Your task to perform on an android device: Set an alarm for 12pm Image 0: 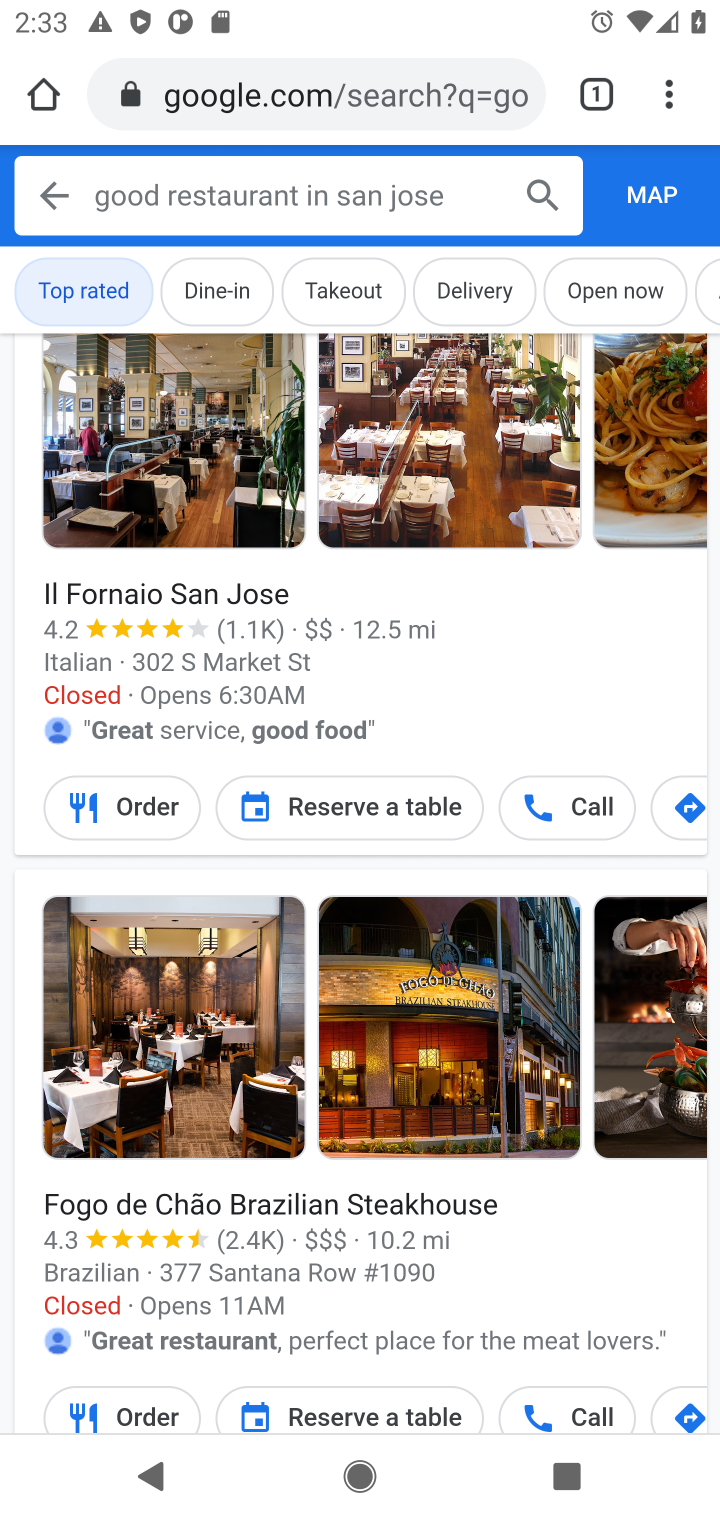
Step 0: press home button
Your task to perform on an android device: Set an alarm for 12pm Image 1: 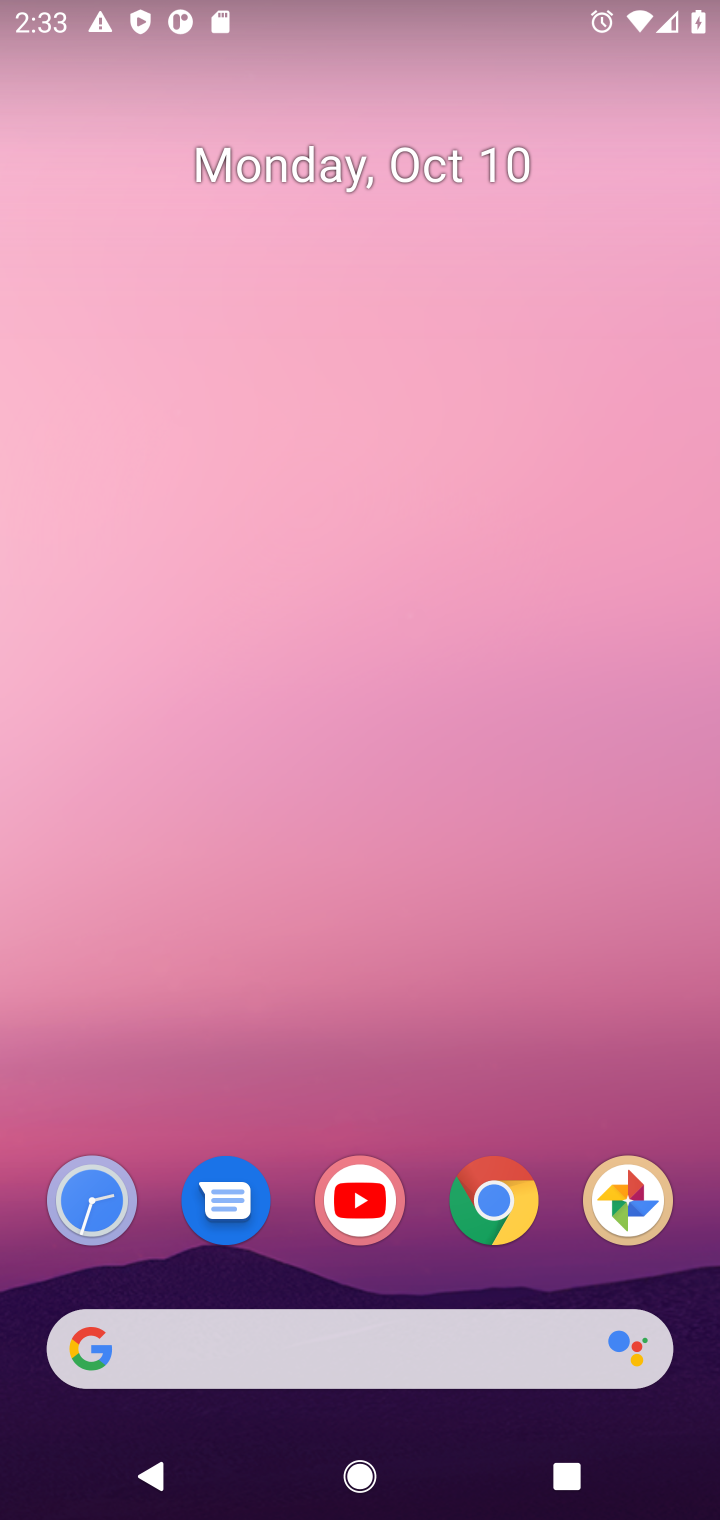
Step 1: press home button
Your task to perform on an android device: Set an alarm for 12pm Image 2: 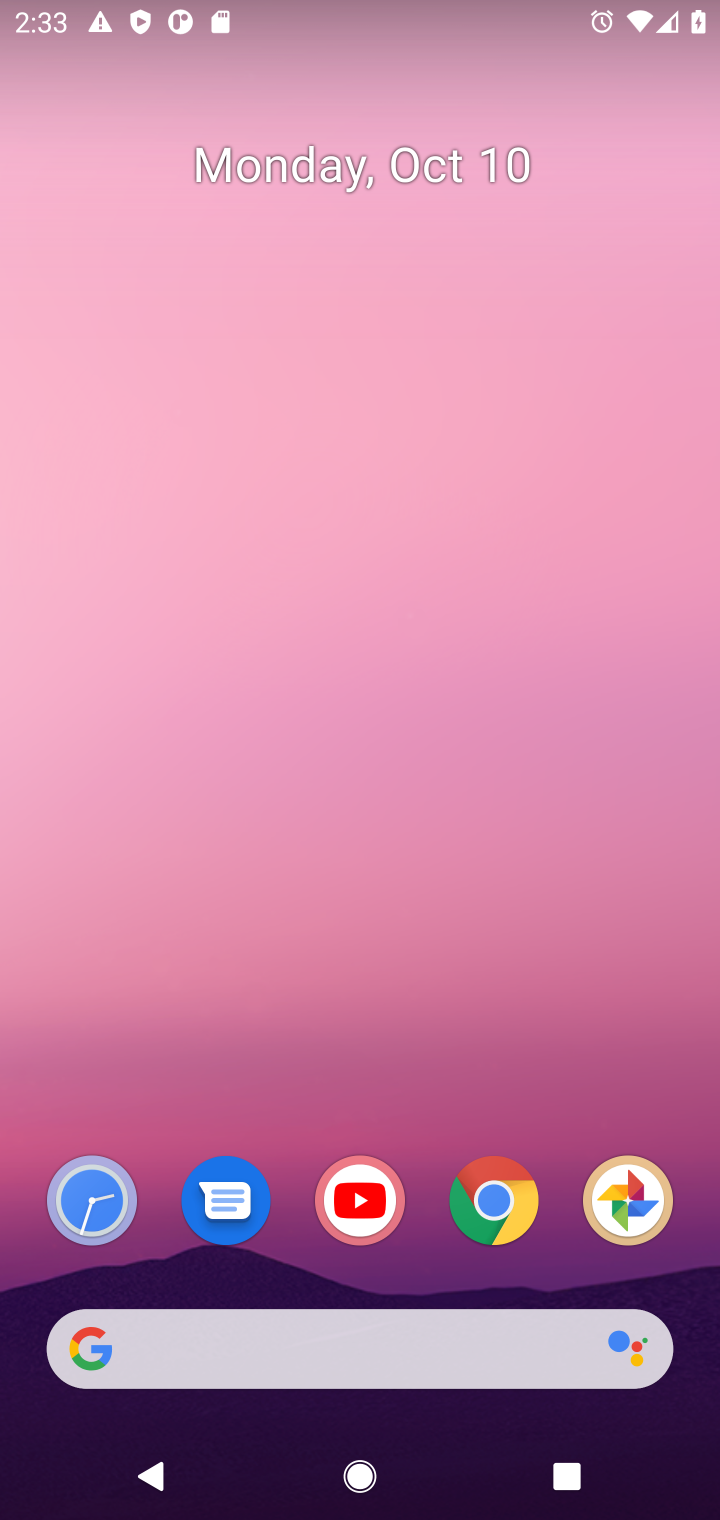
Step 2: click (518, 1202)
Your task to perform on an android device: Set an alarm for 12pm Image 3: 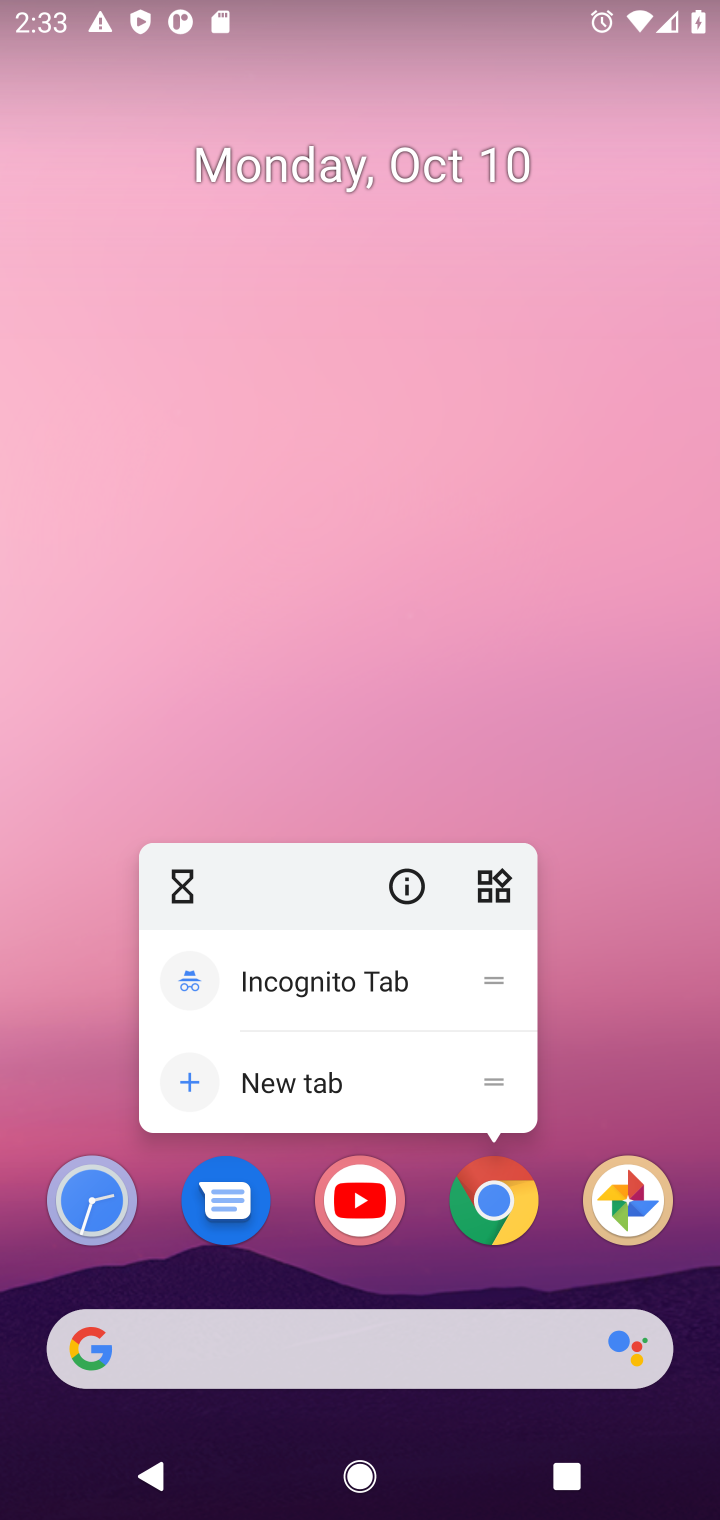
Step 3: click (605, 865)
Your task to perform on an android device: Set an alarm for 12pm Image 4: 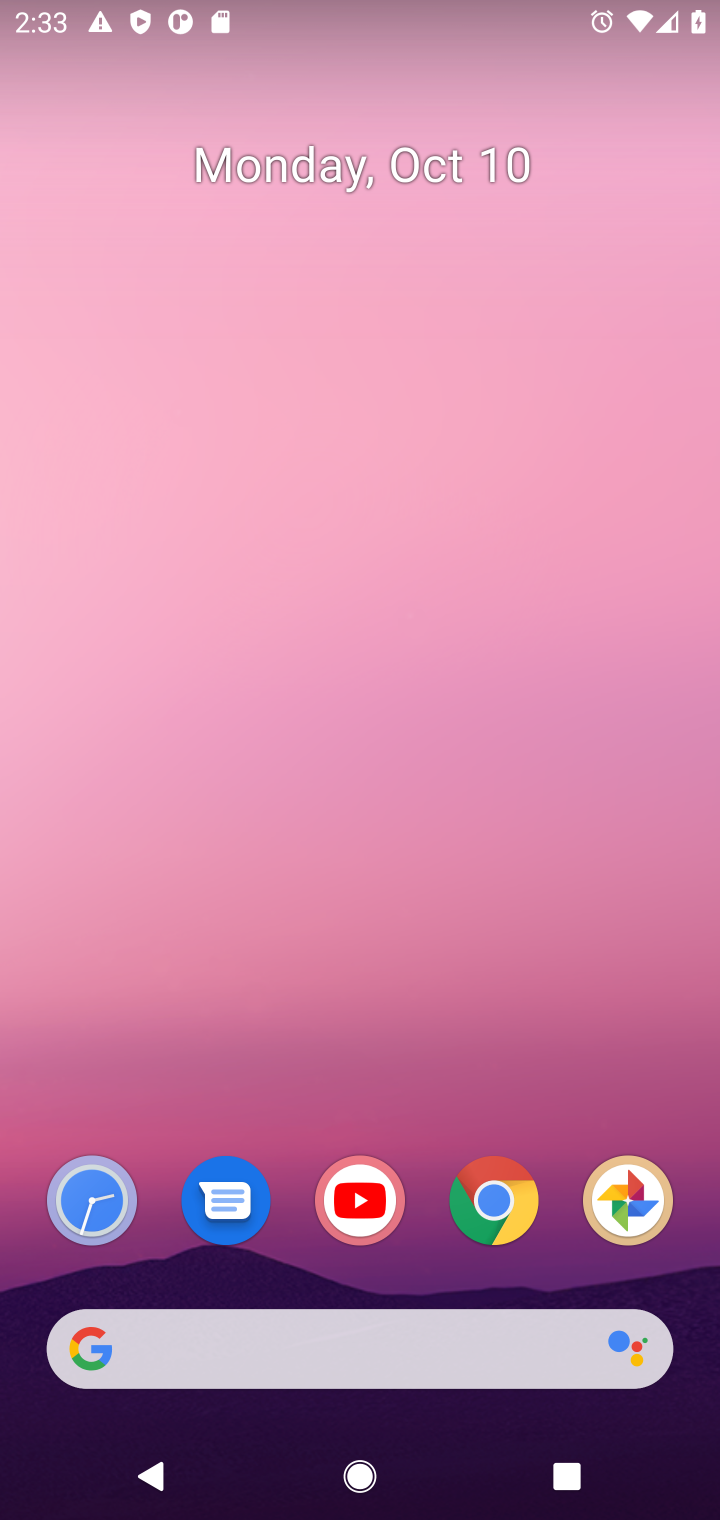
Step 4: click (503, 1221)
Your task to perform on an android device: Set an alarm for 12pm Image 5: 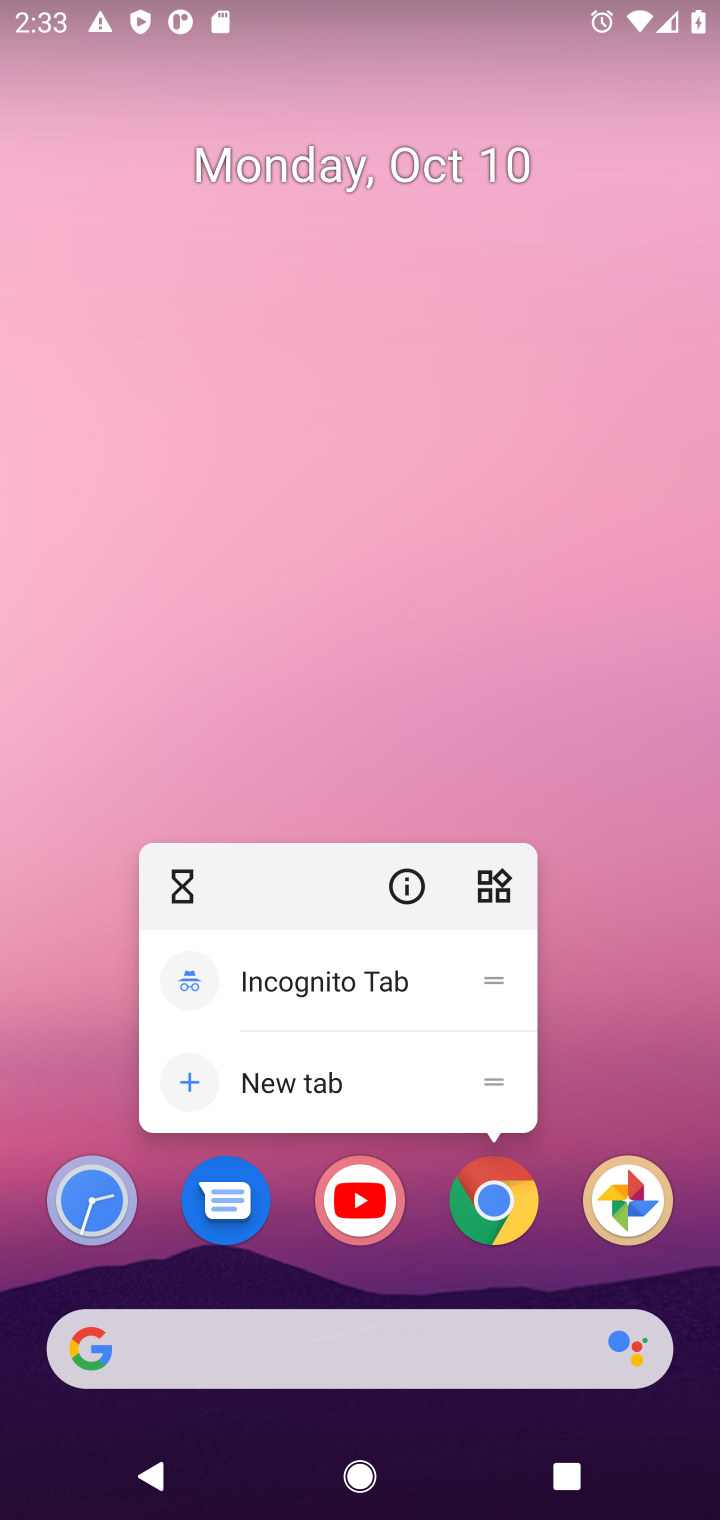
Step 5: click (626, 931)
Your task to perform on an android device: Set an alarm for 12pm Image 6: 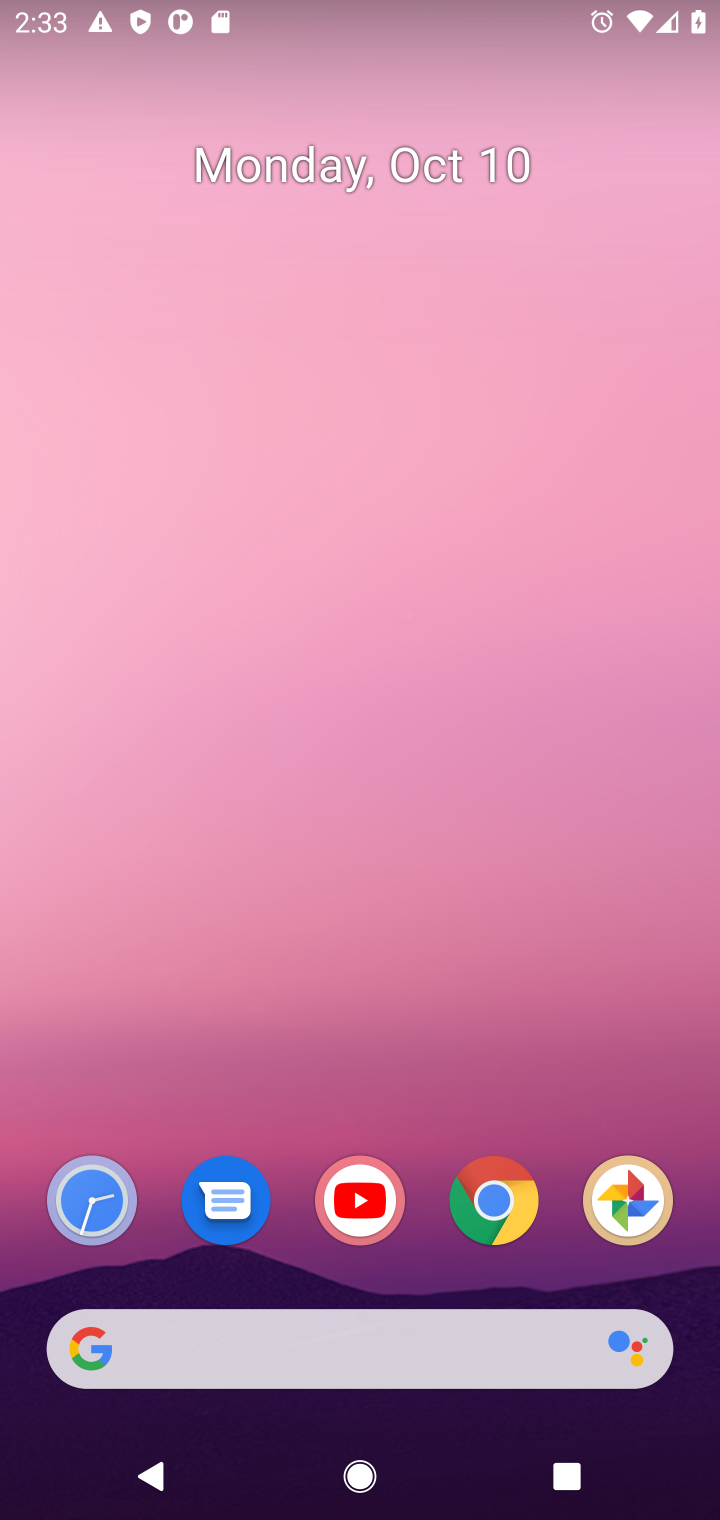
Step 6: click (488, 1221)
Your task to perform on an android device: Set an alarm for 12pm Image 7: 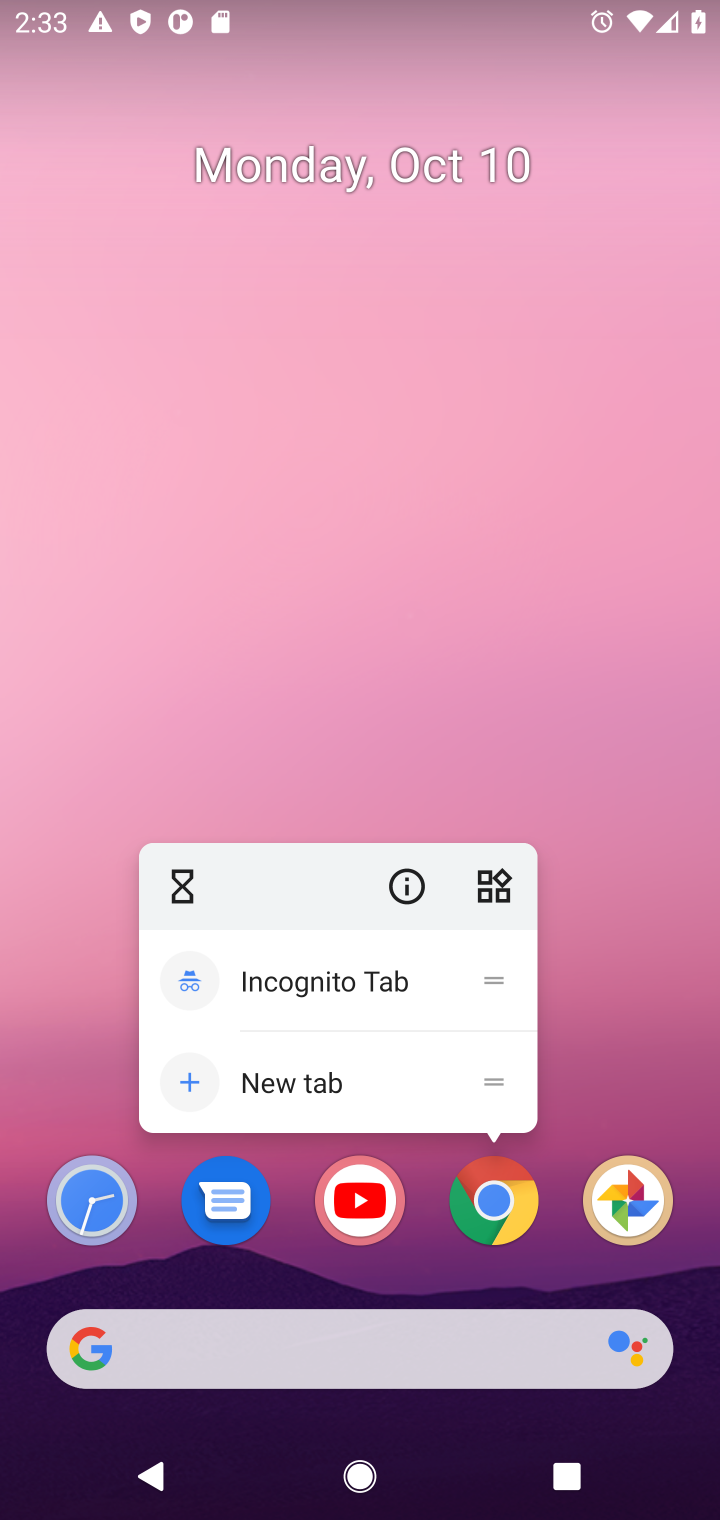
Step 7: drag from (512, 442) to (581, 157)
Your task to perform on an android device: Set an alarm for 12pm Image 8: 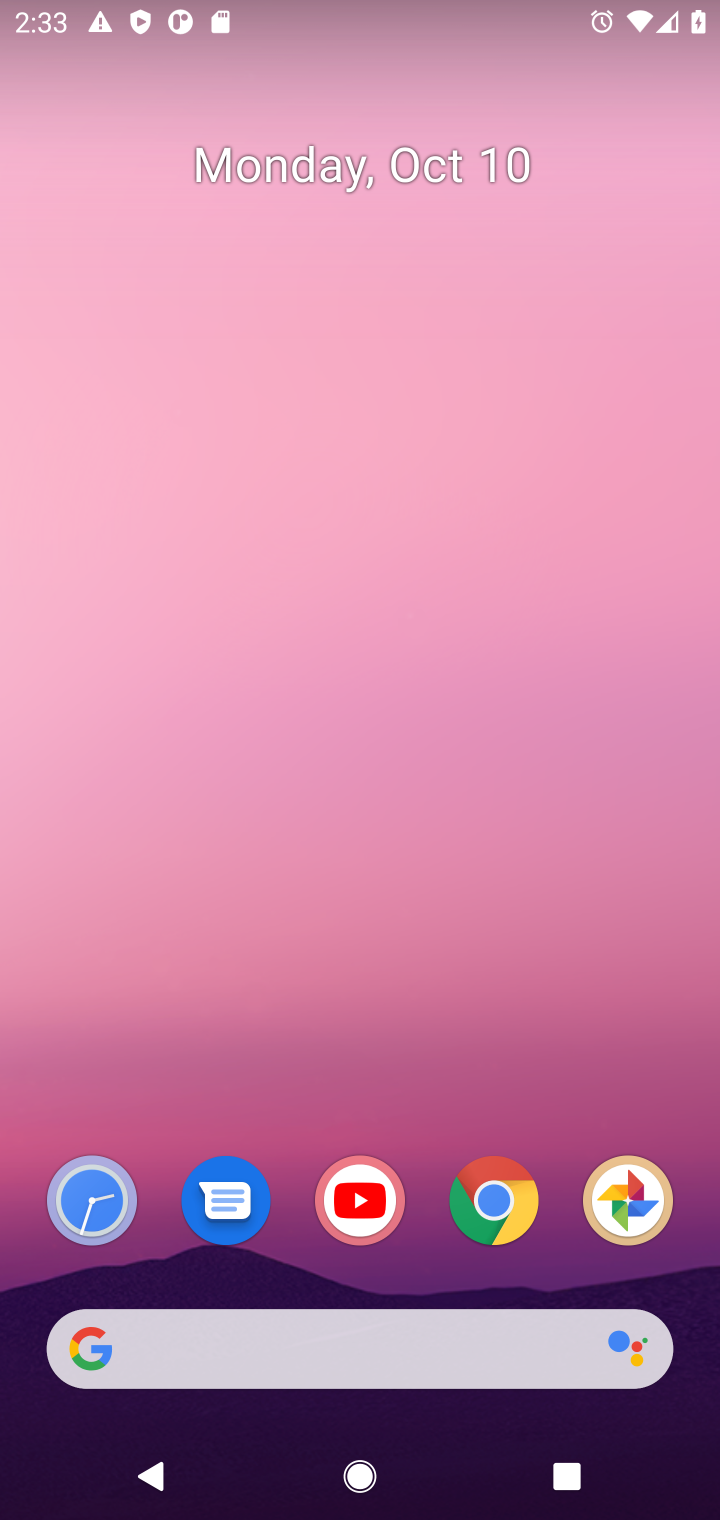
Step 8: click (103, 1189)
Your task to perform on an android device: Set an alarm for 12pm Image 9: 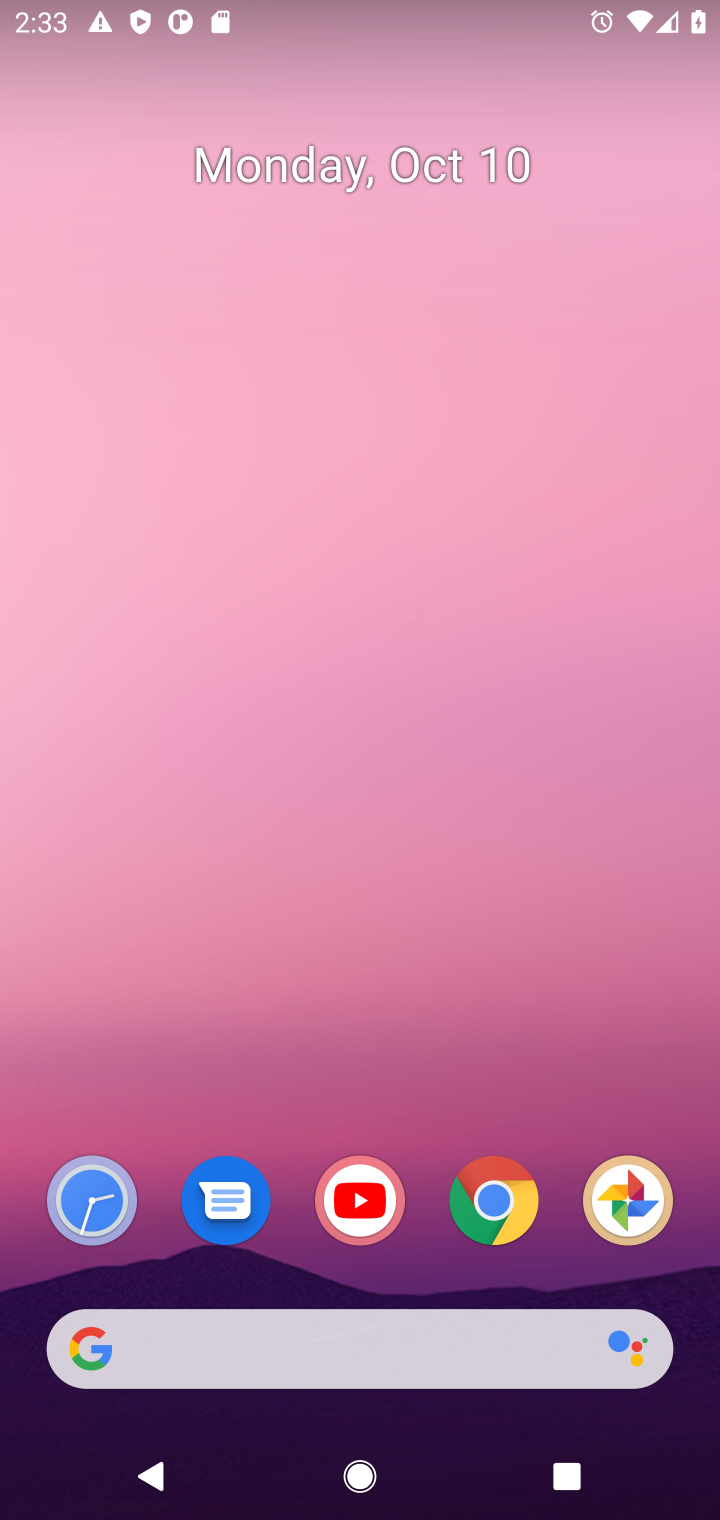
Step 9: click (91, 1214)
Your task to perform on an android device: Set an alarm for 12pm Image 10: 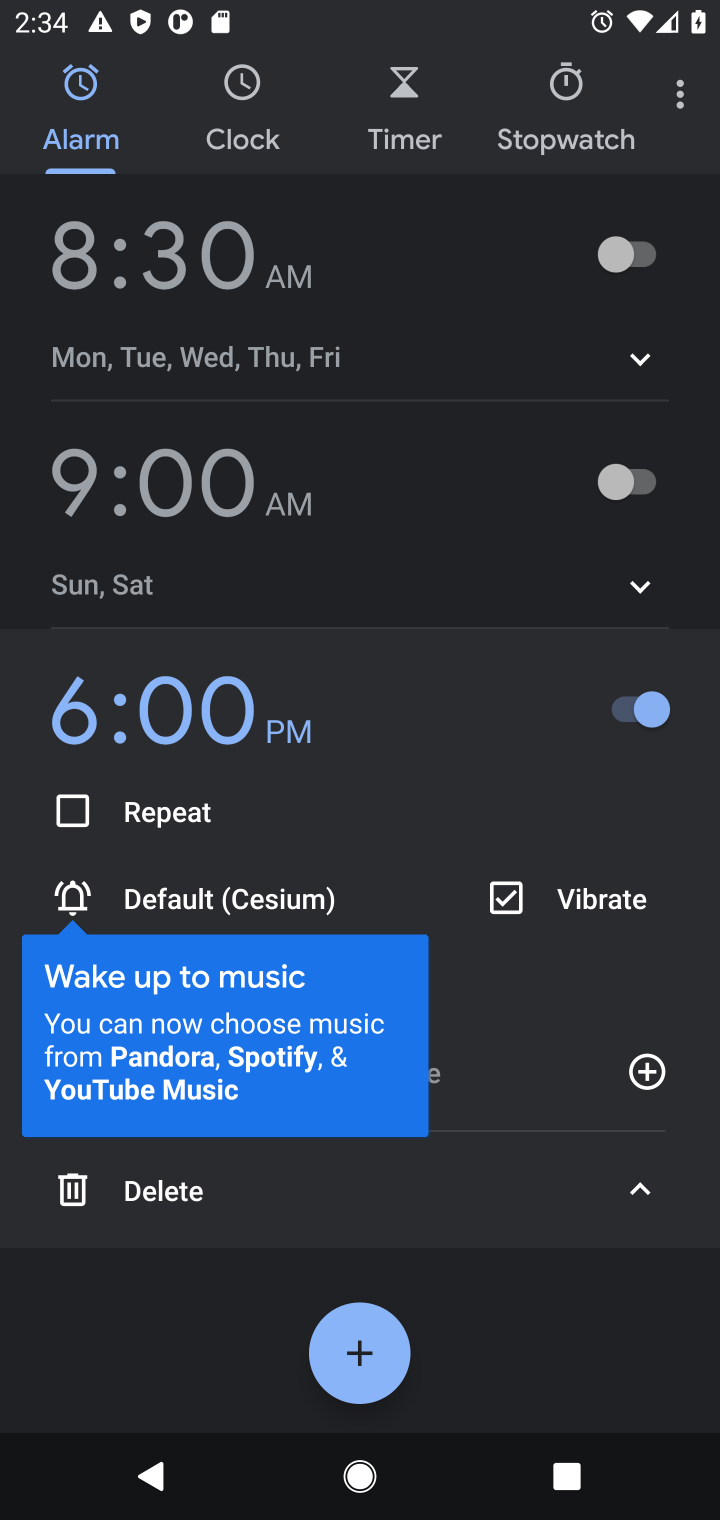
Step 10: click (374, 1358)
Your task to perform on an android device: Set an alarm for 12pm Image 11: 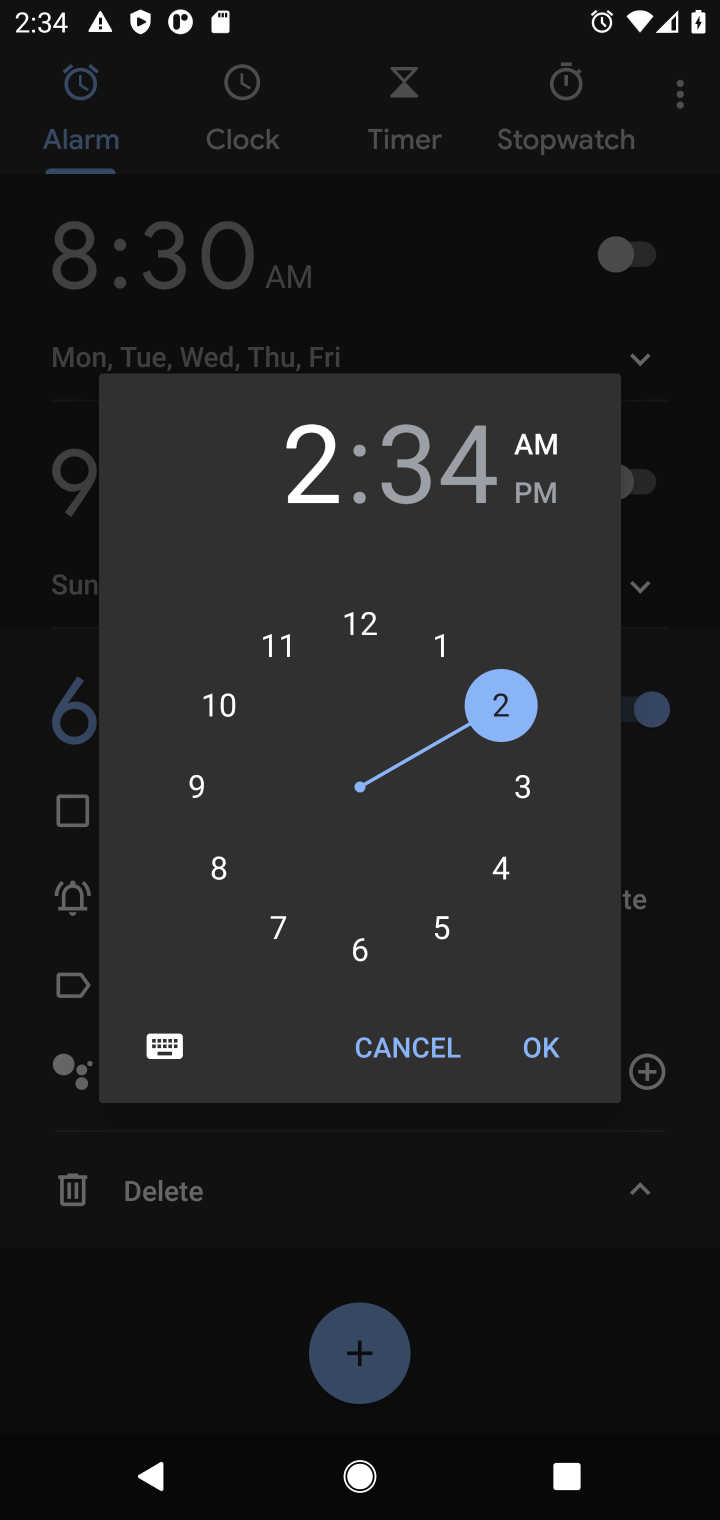
Step 11: click (544, 493)
Your task to perform on an android device: Set an alarm for 12pm Image 12: 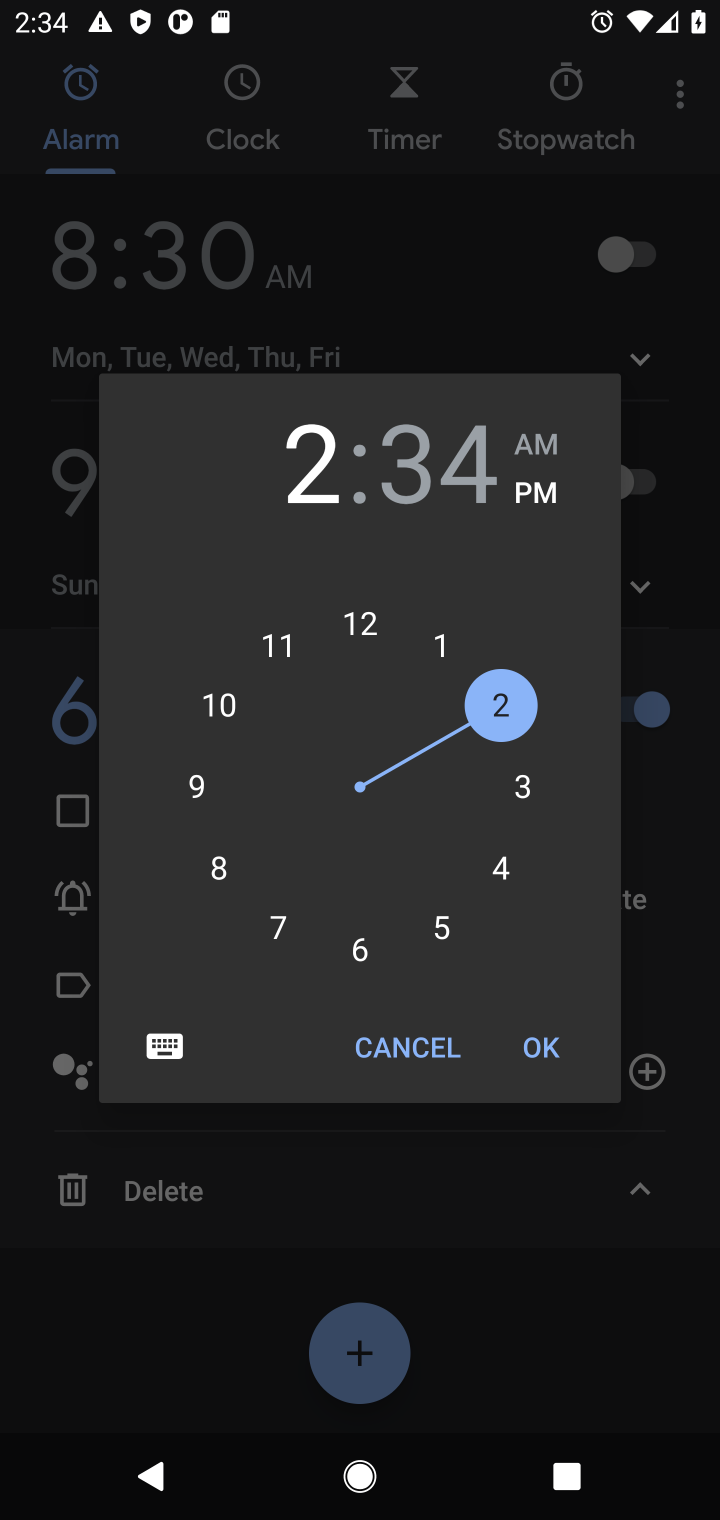
Step 12: click (371, 632)
Your task to perform on an android device: Set an alarm for 12pm Image 13: 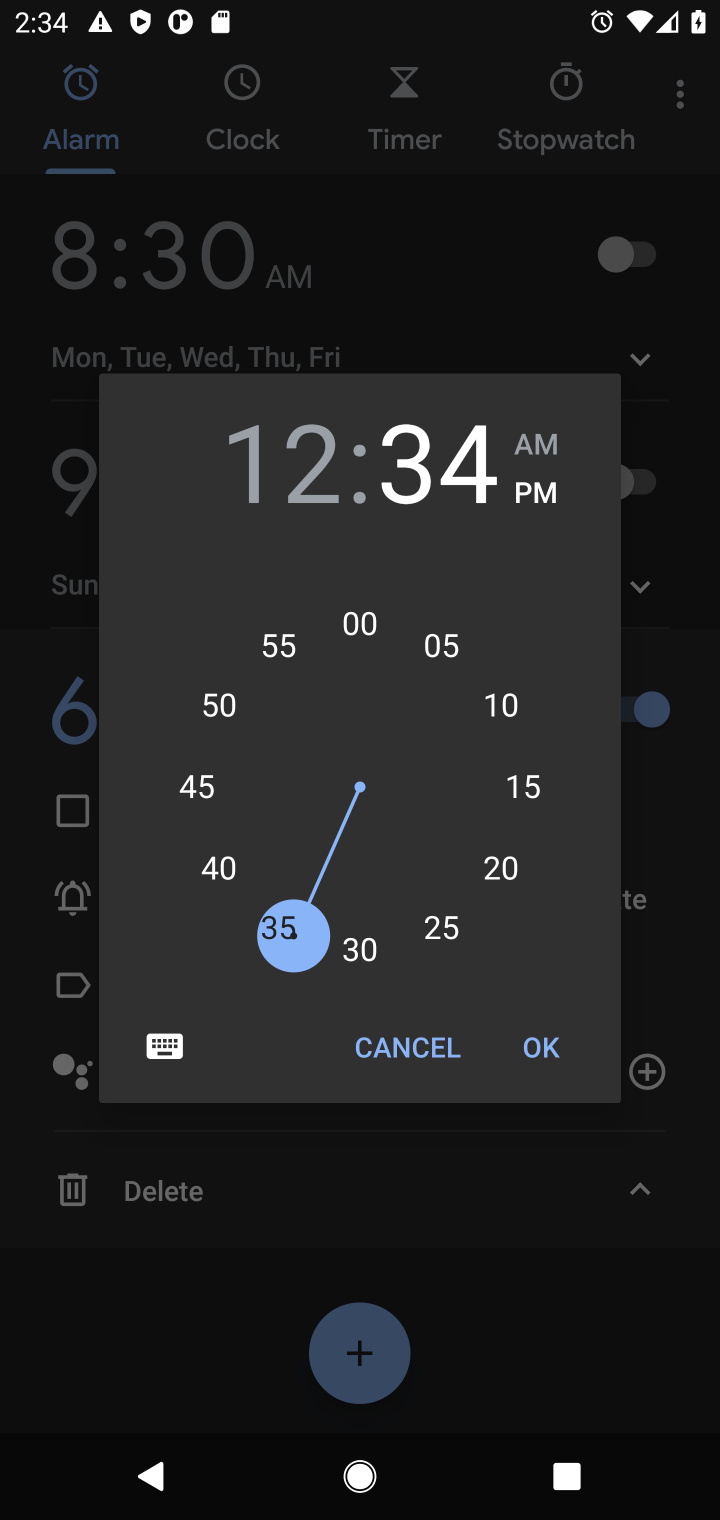
Step 13: click (361, 636)
Your task to perform on an android device: Set an alarm for 12pm Image 14: 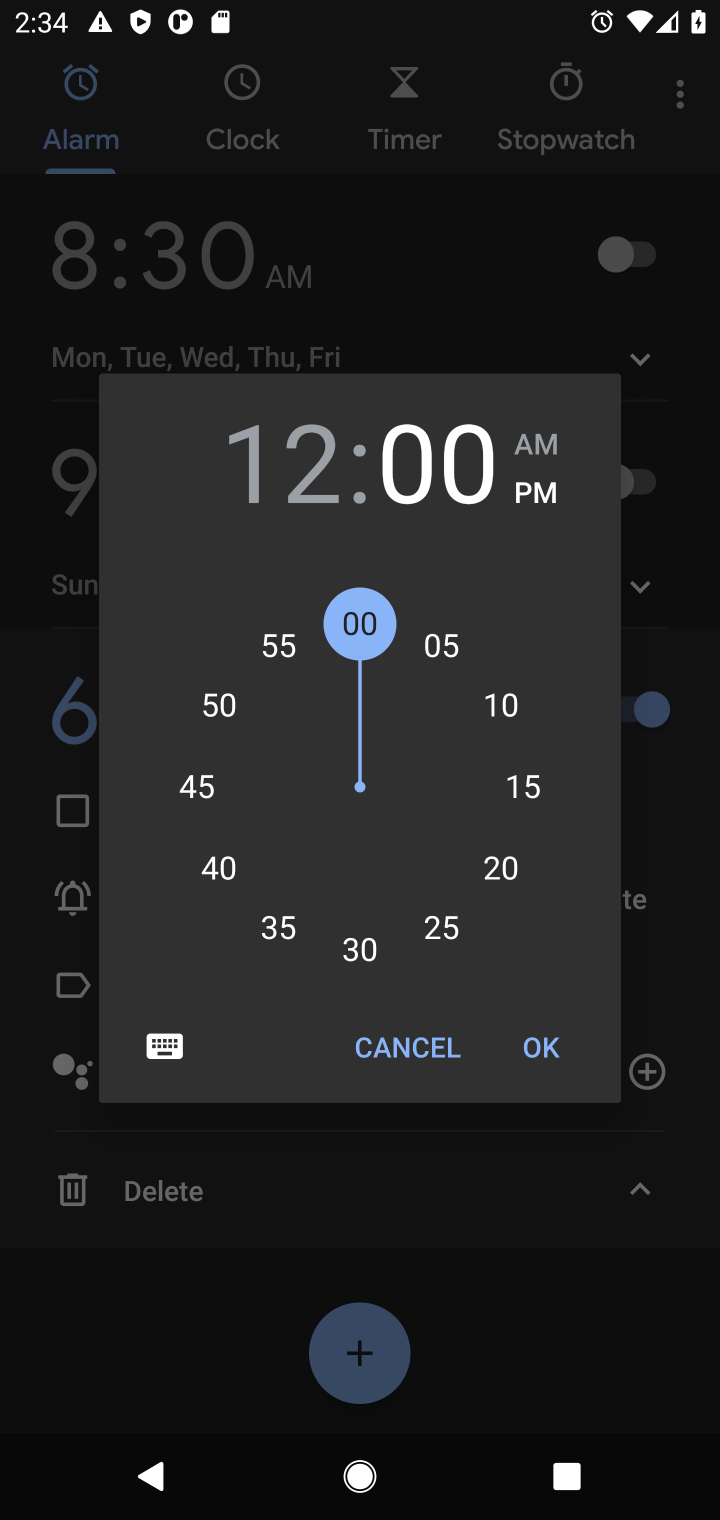
Step 14: click (554, 1053)
Your task to perform on an android device: Set an alarm for 12pm Image 15: 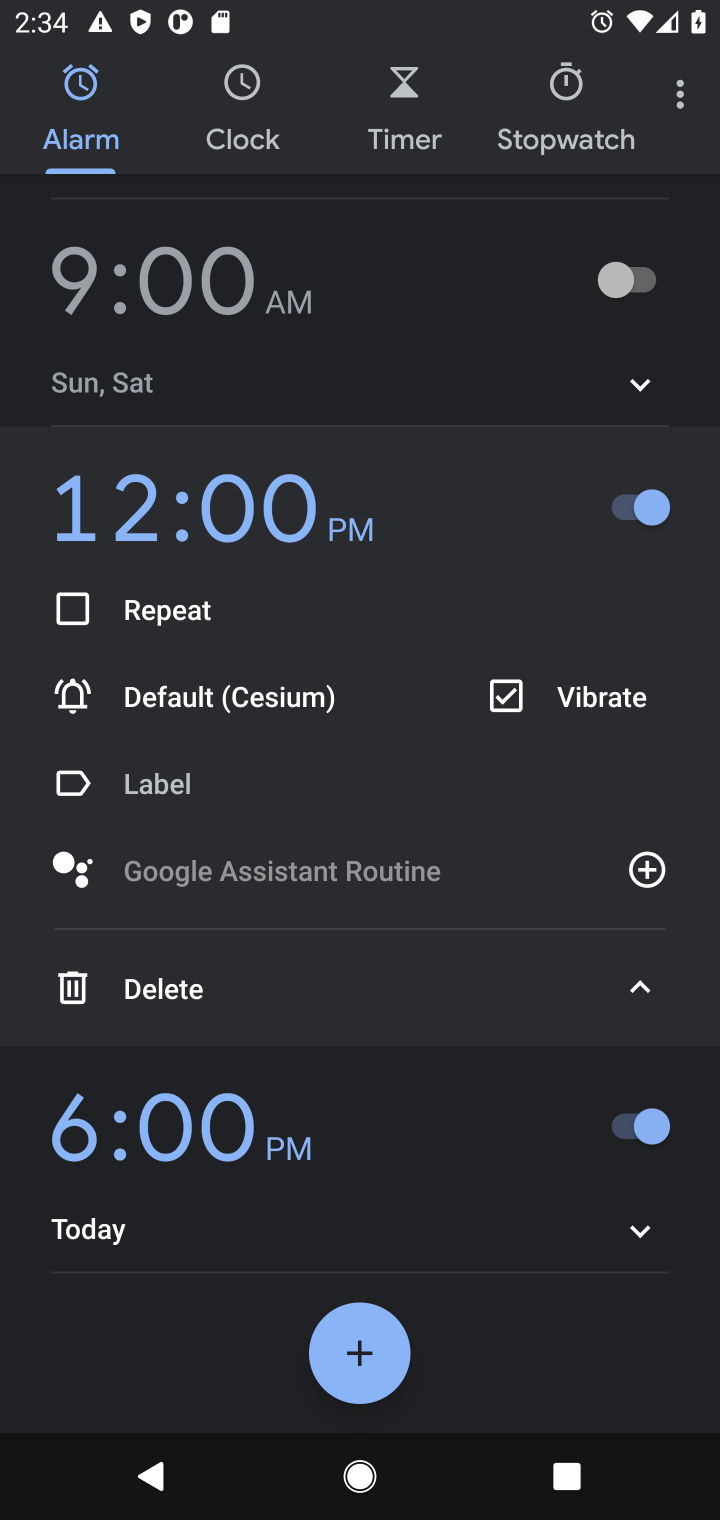
Step 15: task complete